Your task to perform on an android device: open sync settings in chrome Image 0: 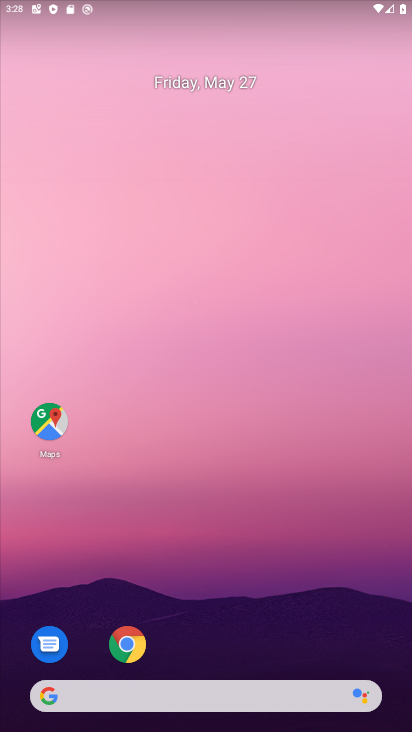
Step 0: click (126, 644)
Your task to perform on an android device: open sync settings in chrome Image 1: 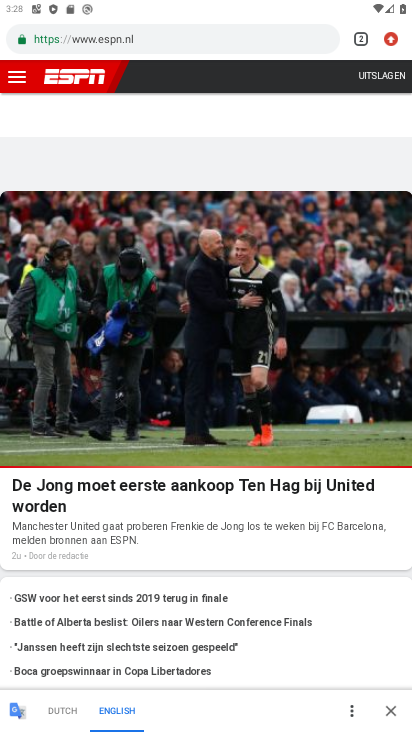
Step 1: click (395, 37)
Your task to perform on an android device: open sync settings in chrome Image 2: 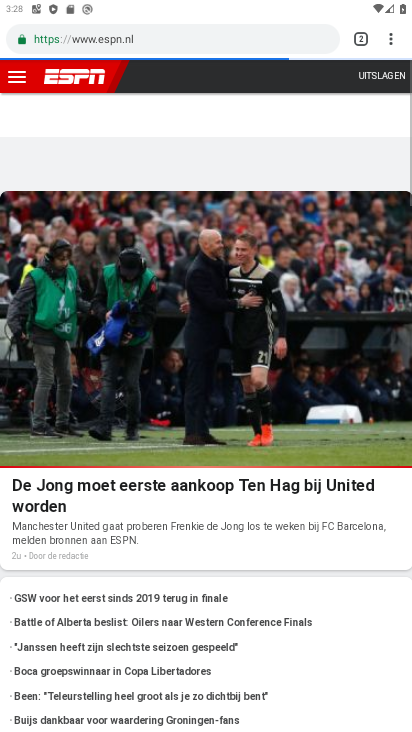
Step 2: click (387, 35)
Your task to perform on an android device: open sync settings in chrome Image 3: 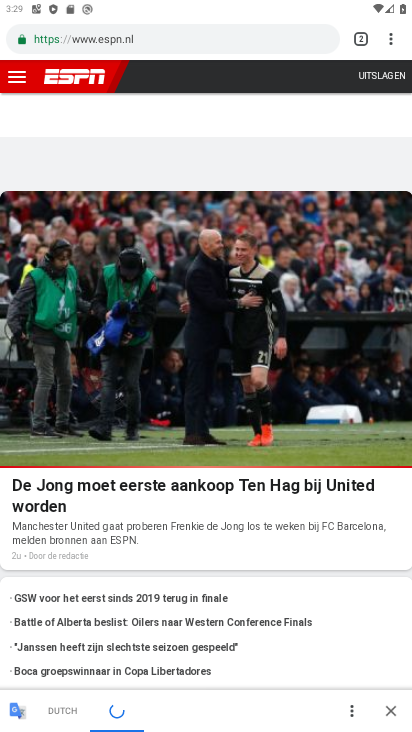
Step 3: click (381, 32)
Your task to perform on an android device: open sync settings in chrome Image 4: 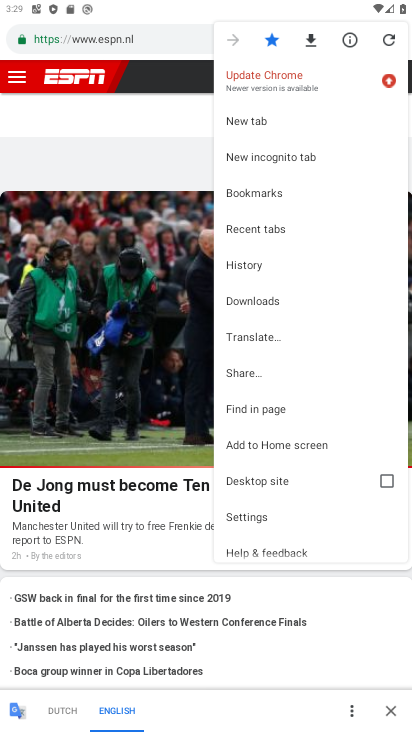
Step 4: click (246, 526)
Your task to perform on an android device: open sync settings in chrome Image 5: 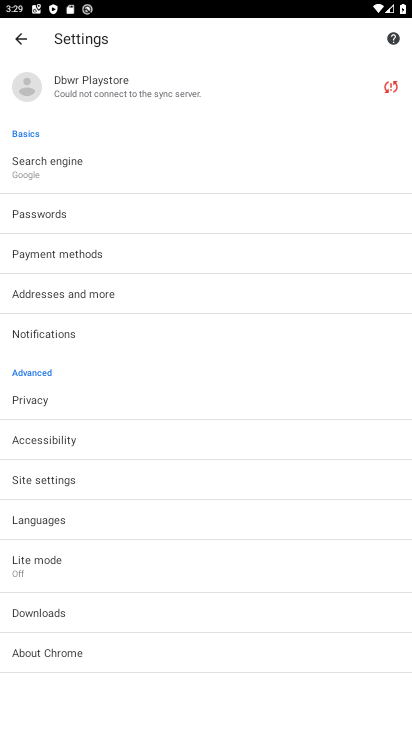
Step 5: click (104, 482)
Your task to perform on an android device: open sync settings in chrome Image 6: 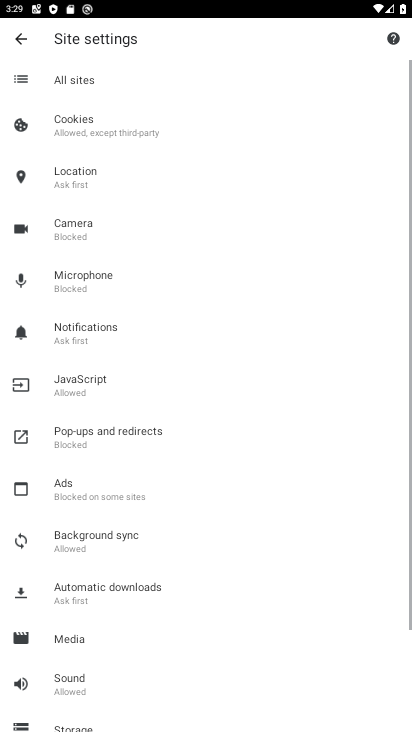
Step 6: click (143, 541)
Your task to perform on an android device: open sync settings in chrome Image 7: 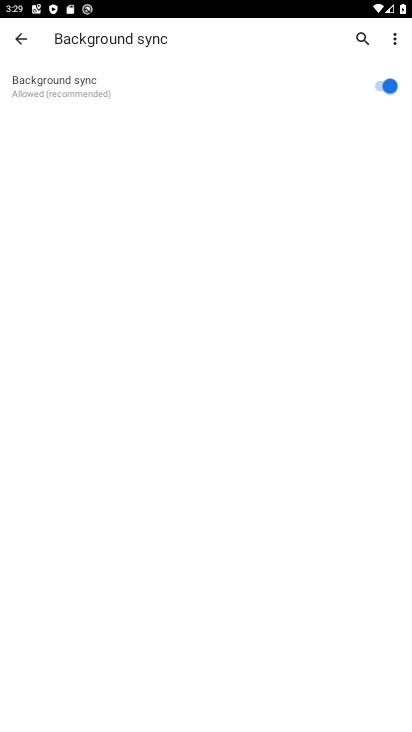
Step 7: task complete